Your task to perform on an android device: Go to Wikipedia Image 0: 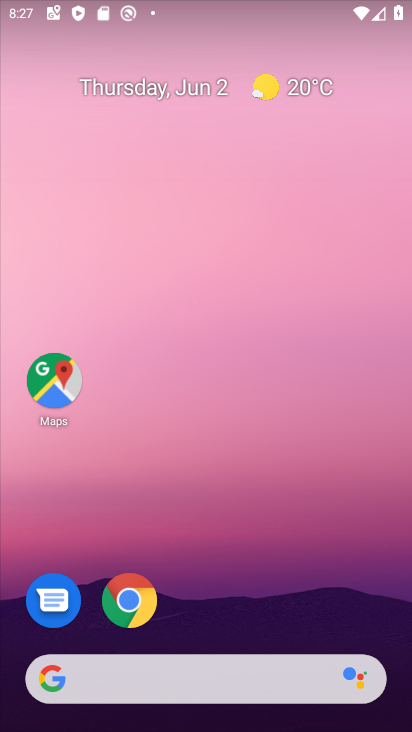
Step 0: drag from (356, 606) to (364, 200)
Your task to perform on an android device: Go to Wikipedia Image 1: 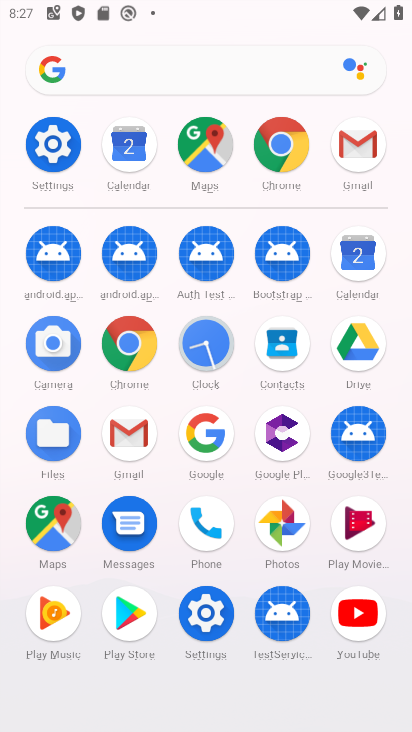
Step 1: click (139, 362)
Your task to perform on an android device: Go to Wikipedia Image 2: 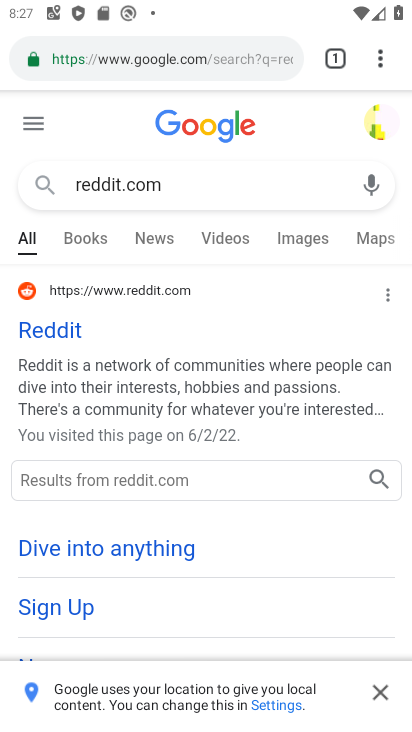
Step 2: click (226, 64)
Your task to perform on an android device: Go to Wikipedia Image 3: 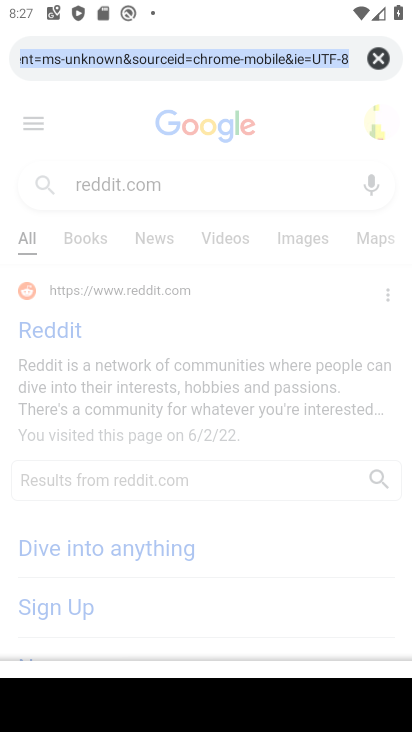
Step 3: click (370, 53)
Your task to perform on an android device: Go to Wikipedia Image 4: 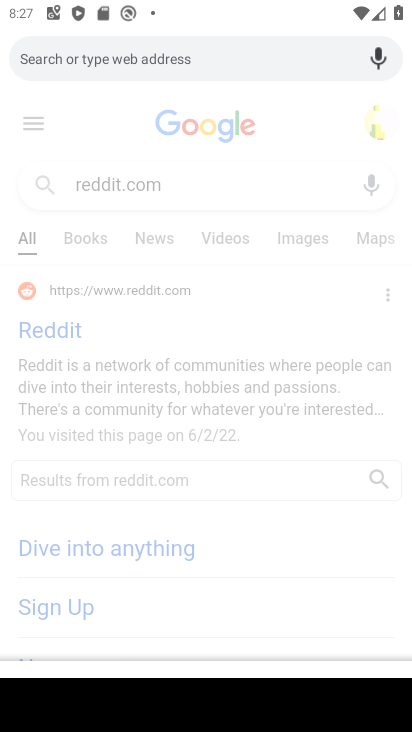
Step 4: type "wikpedia"
Your task to perform on an android device: Go to Wikipedia Image 5: 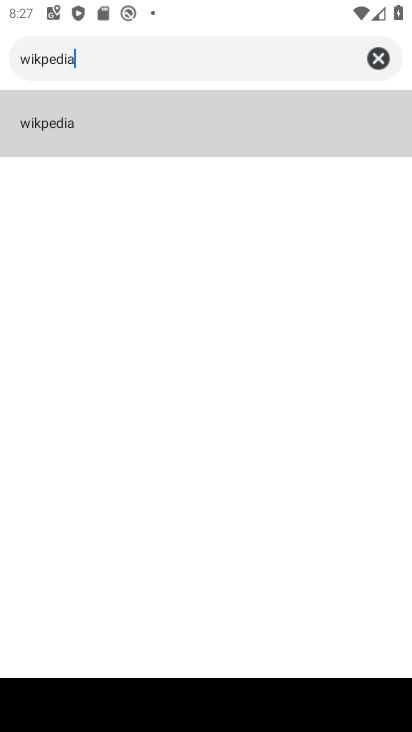
Step 5: click (76, 111)
Your task to perform on an android device: Go to Wikipedia Image 6: 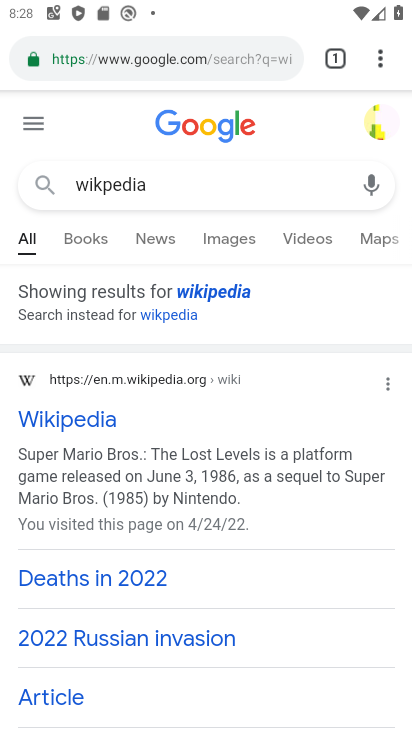
Step 6: click (101, 423)
Your task to perform on an android device: Go to Wikipedia Image 7: 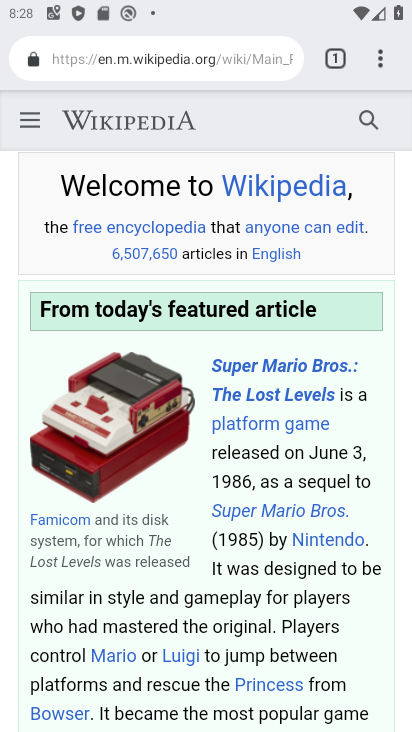
Step 7: task complete